Your task to perform on an android device: Go to location settings Image 0: 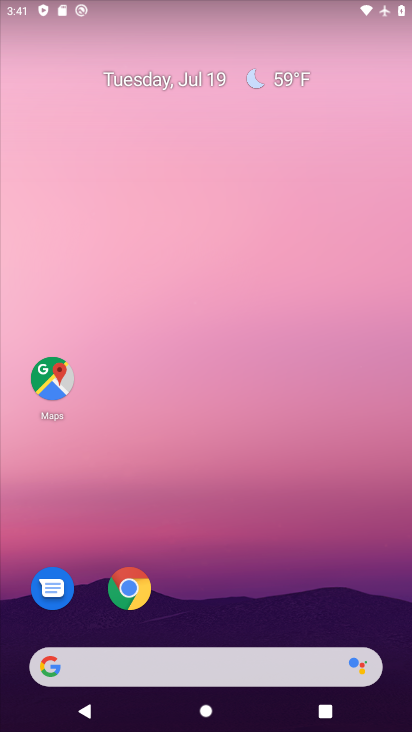
Step 0: press home button
Your task to perform on an android device: Go to location settings Image 1: 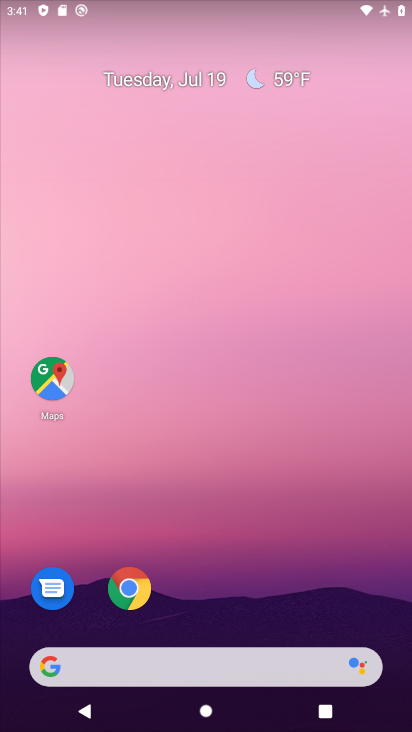
Step 1: drag from (210, 635) to (270, 83)
Your task to perform on an android device: Go to location settings Image 2: 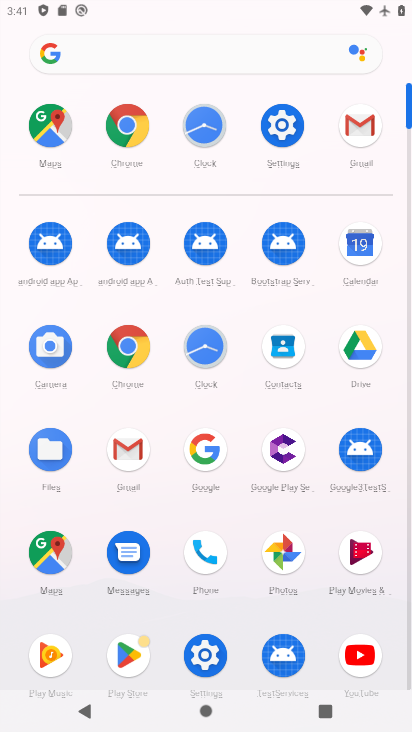
Step 2: click (291, 134)
Your task to perform on an android device: Go to location settings Image 3: 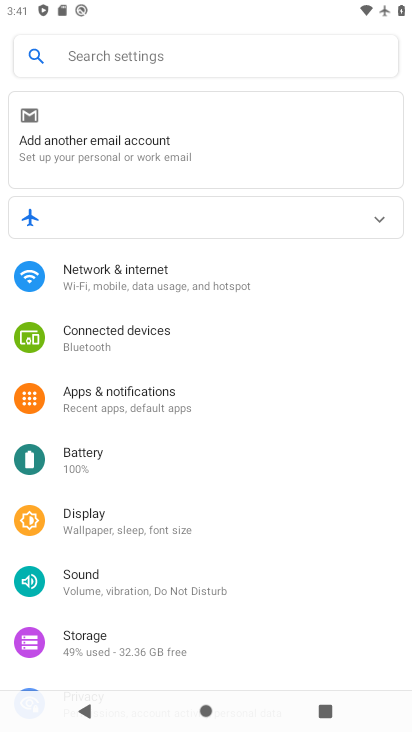
Step 3: drag from (260, 620) to (291, 227)
Your task to perform on an android device: Go to location settings Image 4: 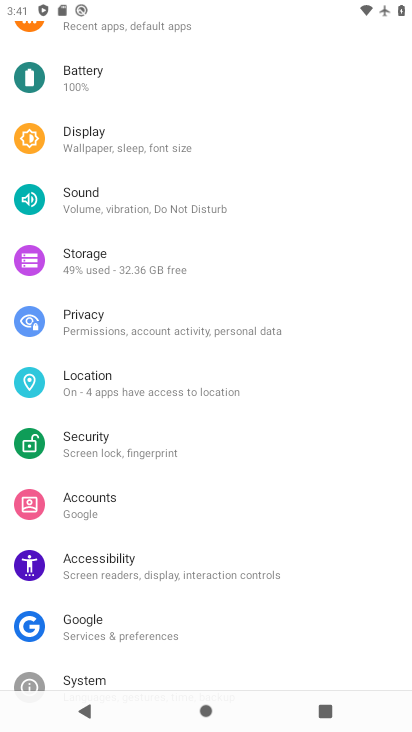
Step 4: click (114, 386)
Your task to perform on an android device: Go to location settings Image 5: 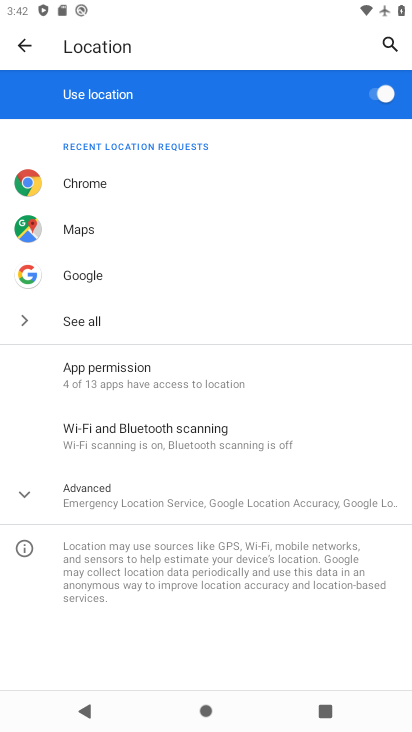
Step 5: task complete